Your task to perform on an android device: Go to Yahoo.com Image 0: 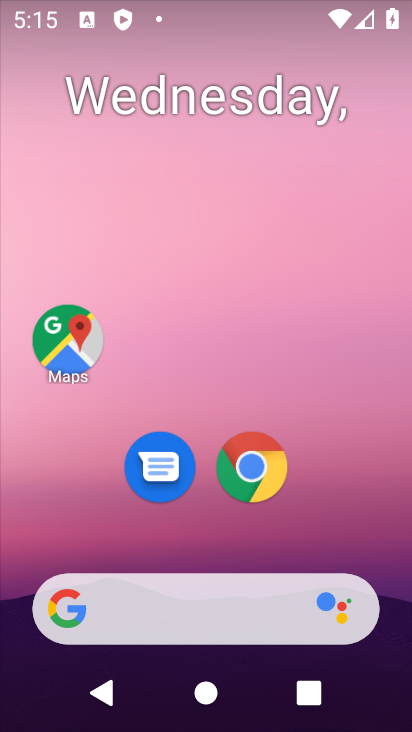
Step 0: click (267, 469)
Your task to perform on an android device: Go to Yahoo.com Image 1: 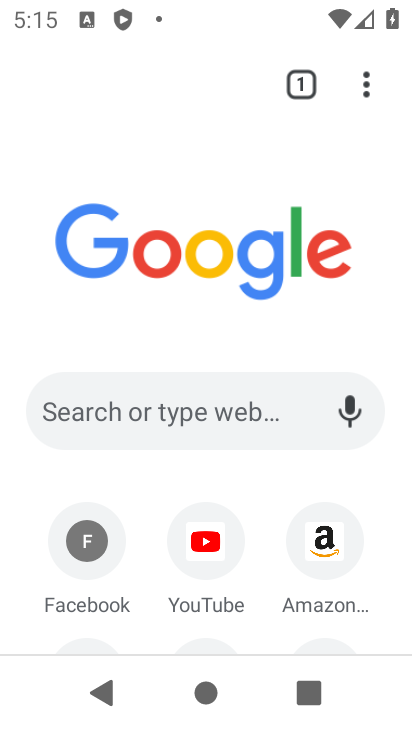
Step 1: drag from (240, 477) to (248, 119)
Your task to perform on an android device: Go to Yahoo.com Image 2: 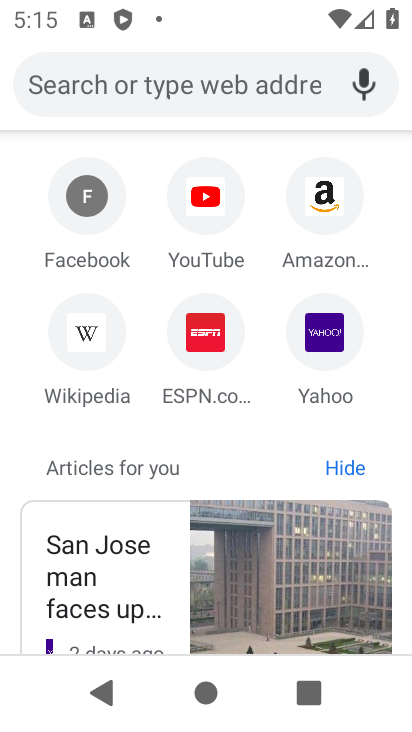
Step 2: click (320, 328)
Your task to perform on an android device: Go to Yahoo.com Image 3: 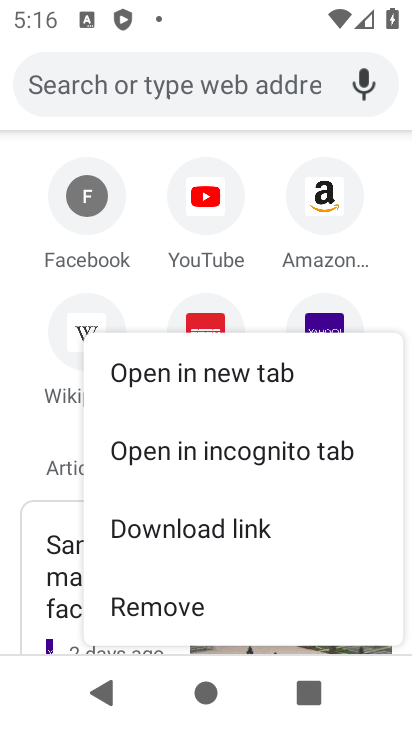
Step 3: click (335, 322)
Your task to perform on an android device: Go to Yahoo.com Image 4: 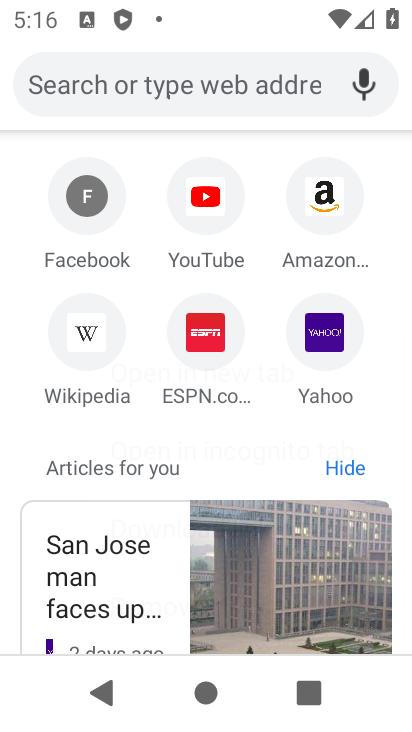
Step 4: click (335, 322)
Your task to perform on an android device: Go to Yahoo.com Image 5: 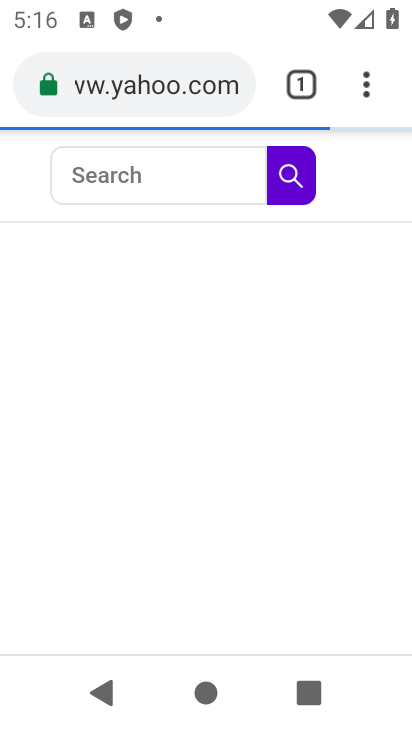
Step 5: task complete